Your task to perform on an android device: install app "Grab" Image 0: 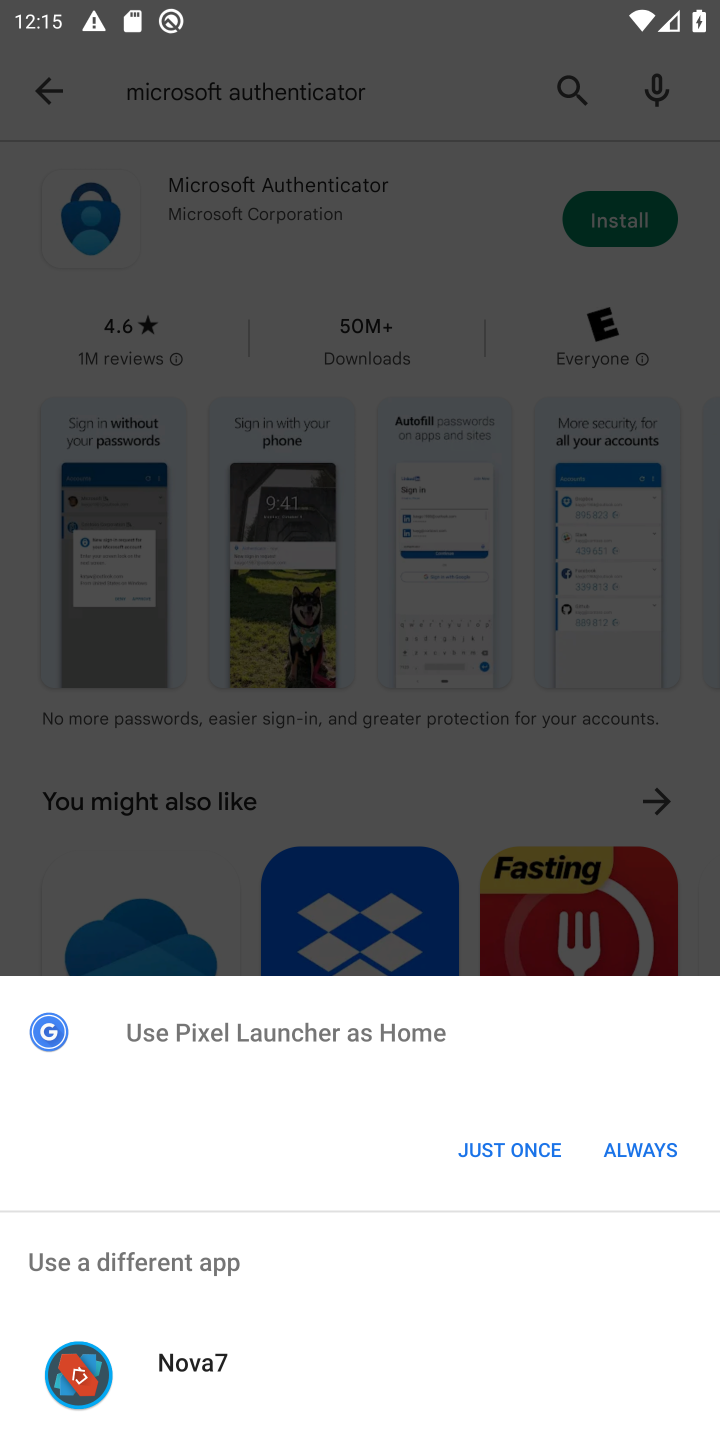
Step 0: press back button
Your task to perform on an android device: install app "Grab" Image 1: 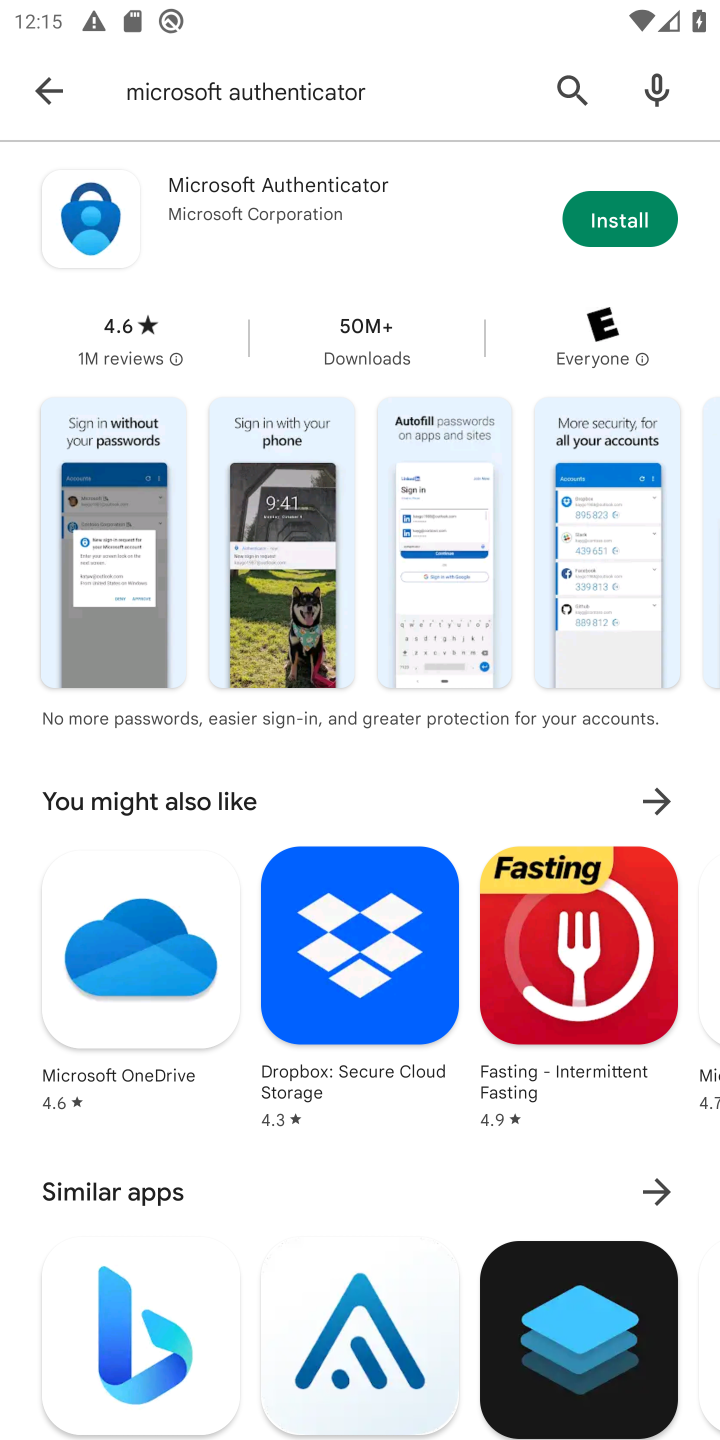
Step 1: click (565, 83)
Your task to perform on an android device: install app "Grab" Image 2: 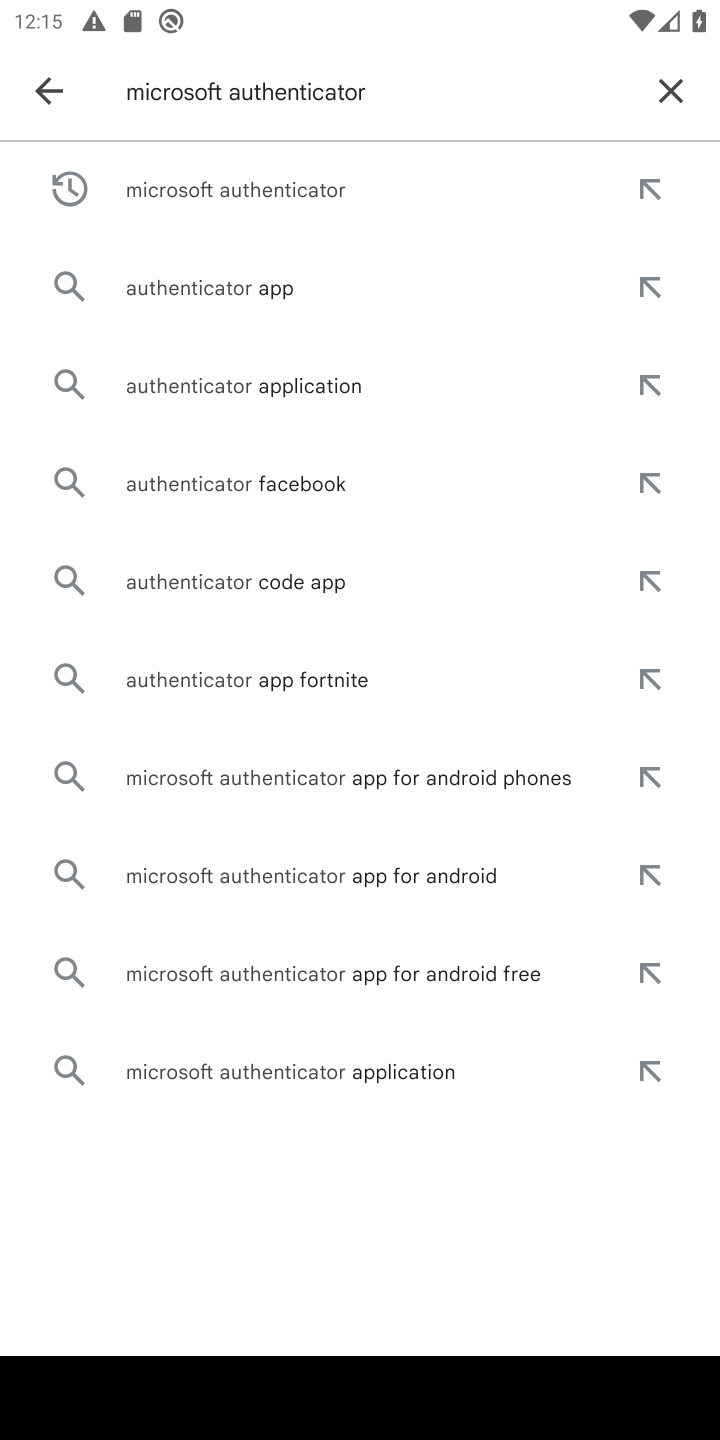
Step 2: click (687, 75)
Your task to perform on an android device: install app "Grab" Image 3: 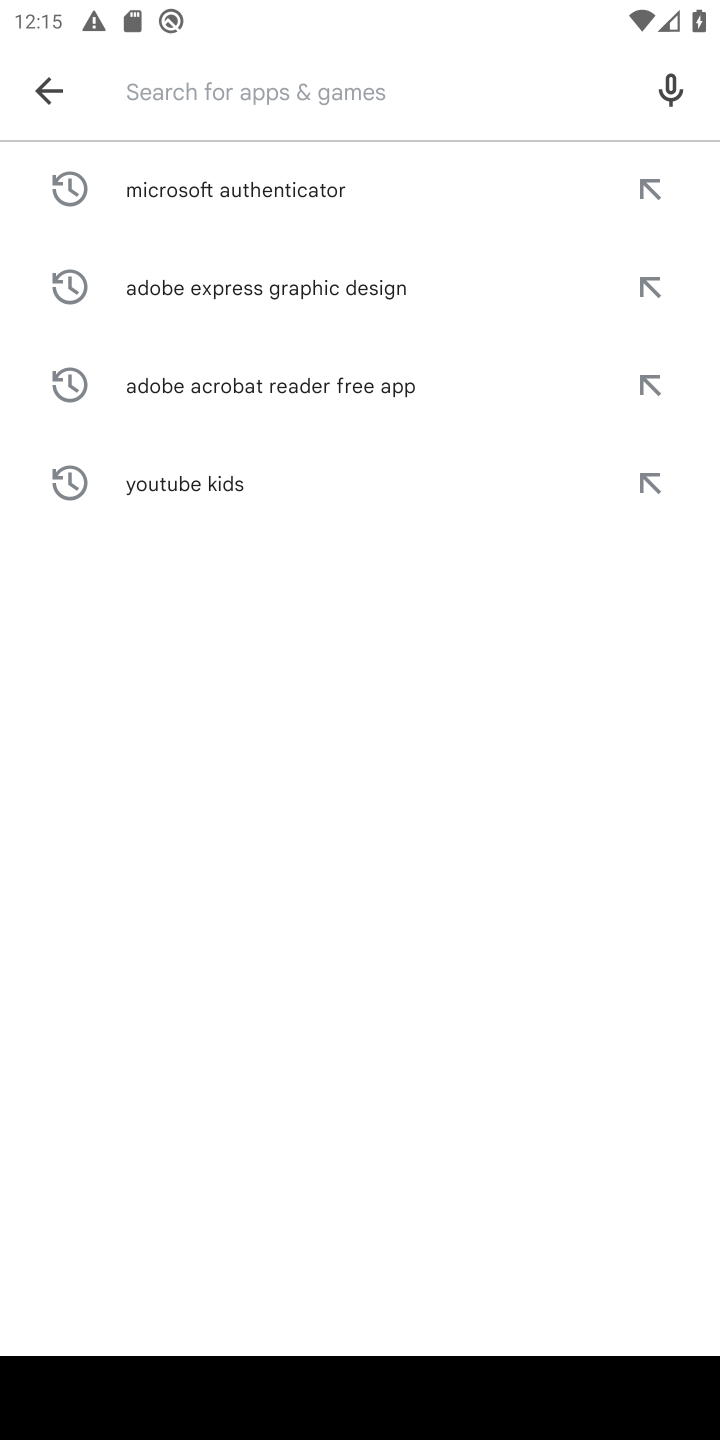
Step 3: type "grab"
Your task to perform on an android device: install app "Grab" Image 4: 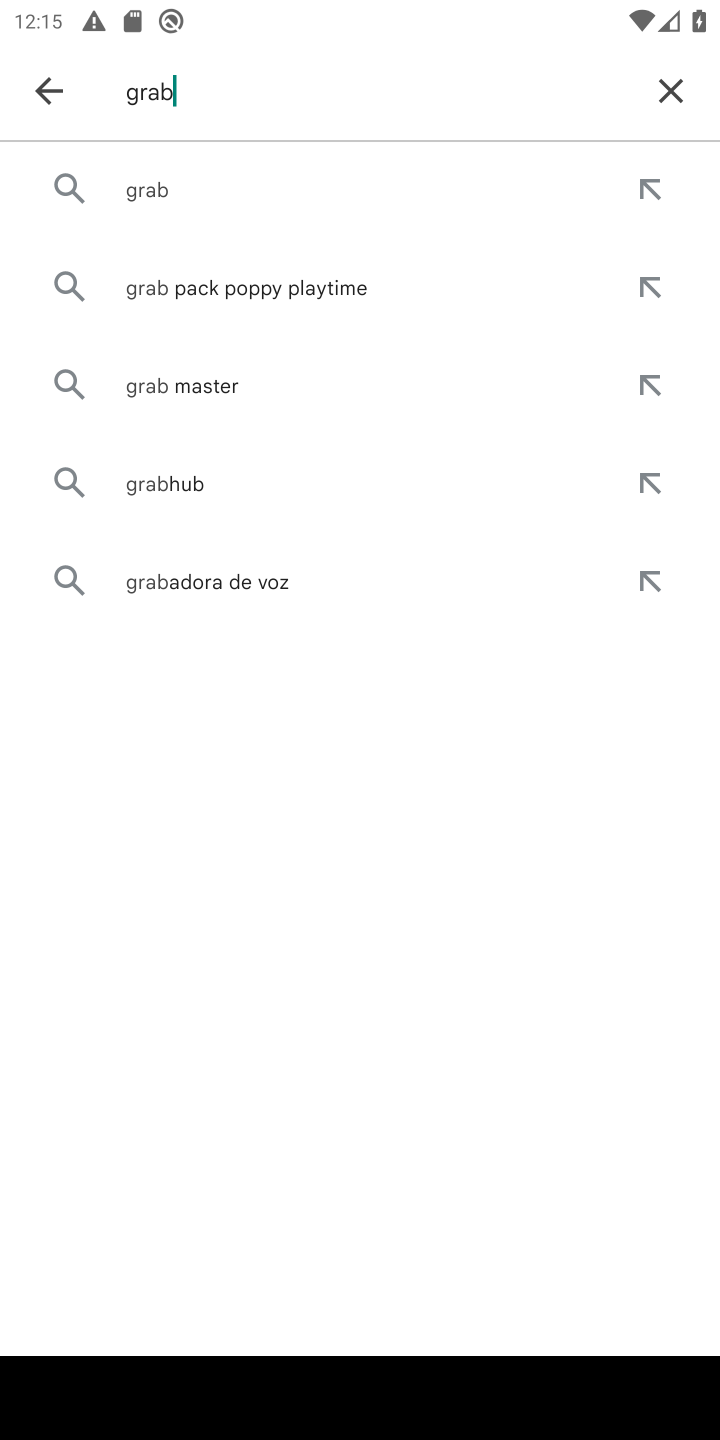
Step 4: click (170, 187)
Your task to perform on an android device: install app "Grab" Image 5: 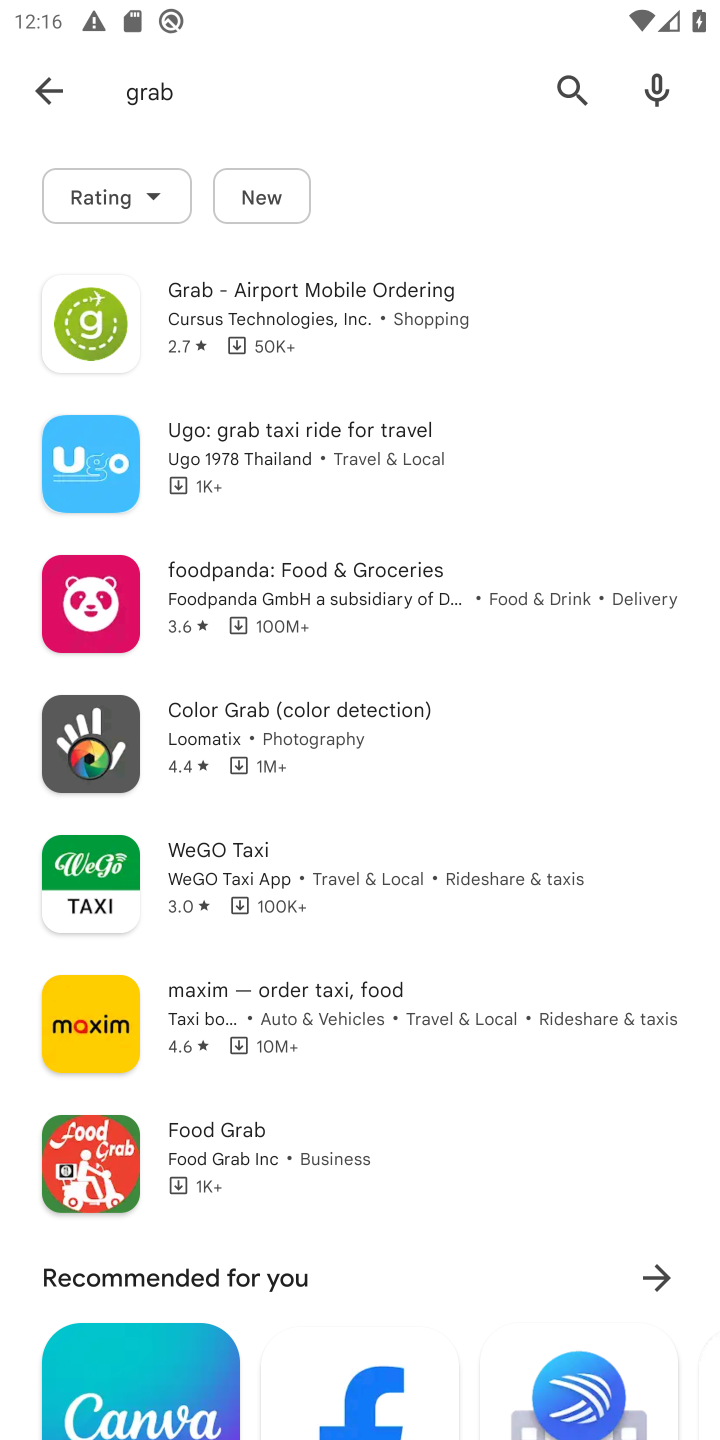
Step 5: click (419, 316)
Your task to perform on an android device: install app "Grab" Image 6: 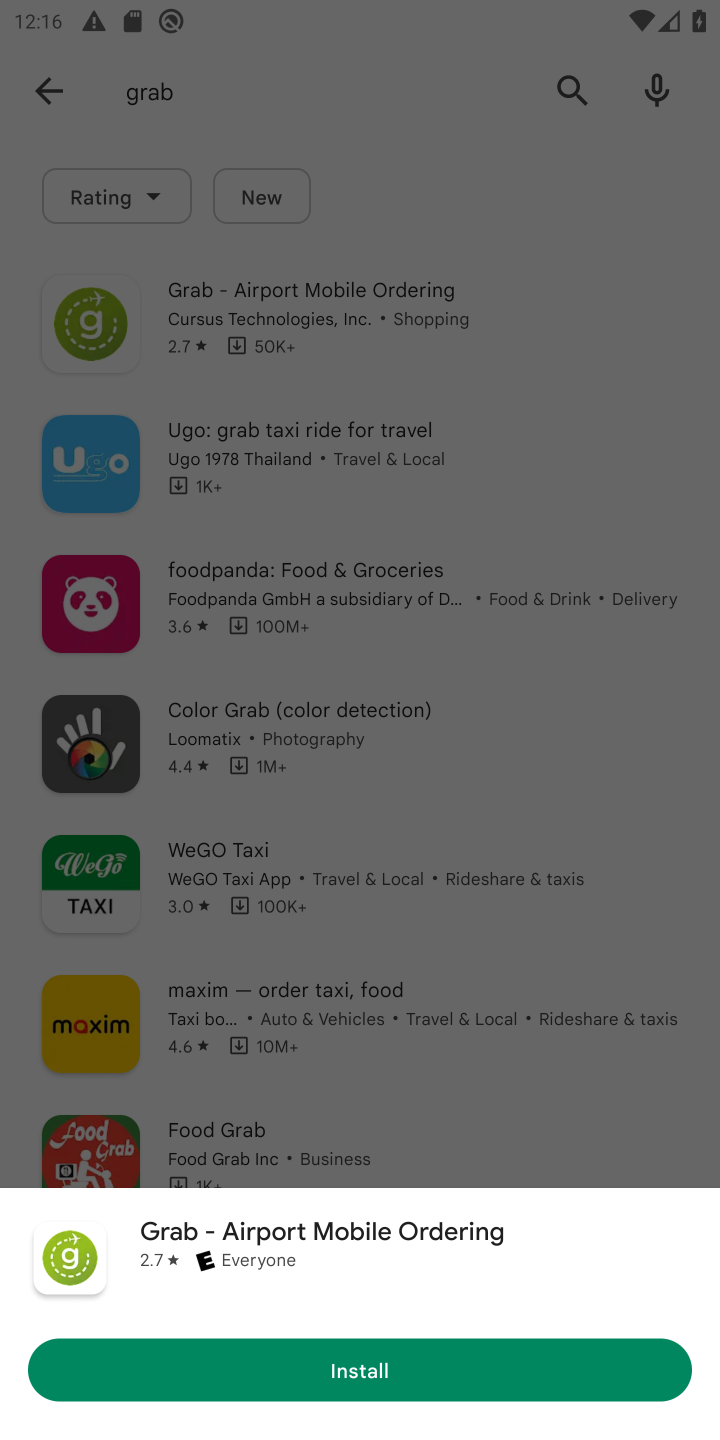
Step 6: click (380, 1375)
Your task to perform on an android device: install app "Grab" Image 7: 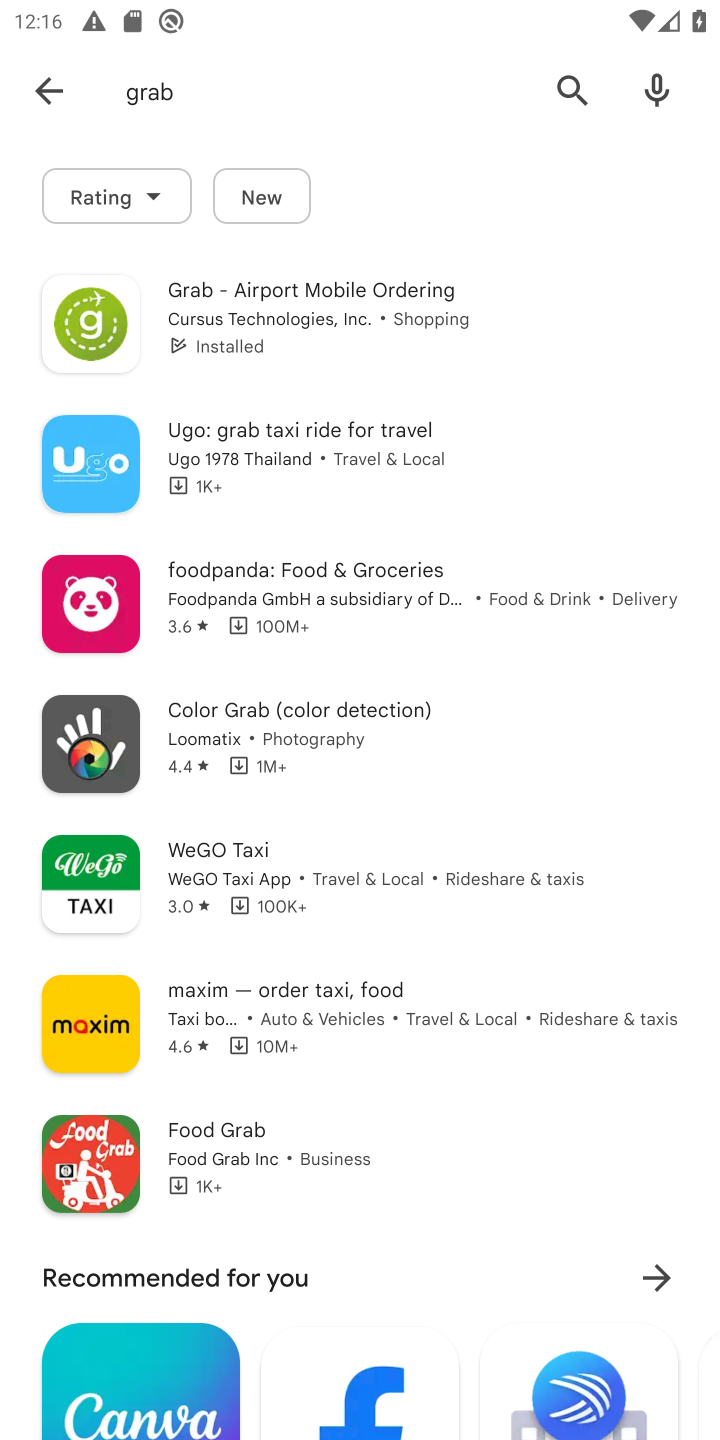
Step 7: click (288, 326)
Your task to perform on an android device: install app "Grab" Image 8: 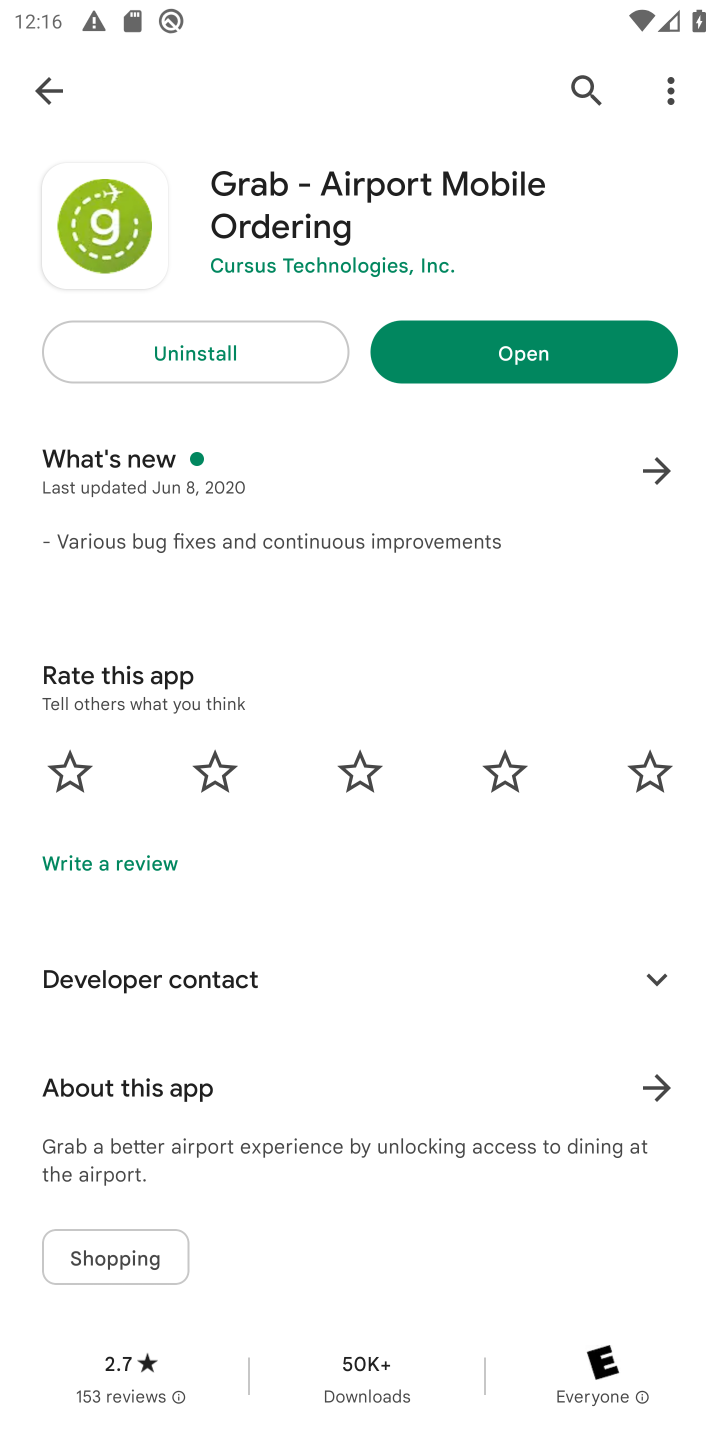
Step 8: task complete